Your task to perform on an android device: empty trash in google photos Image 0: 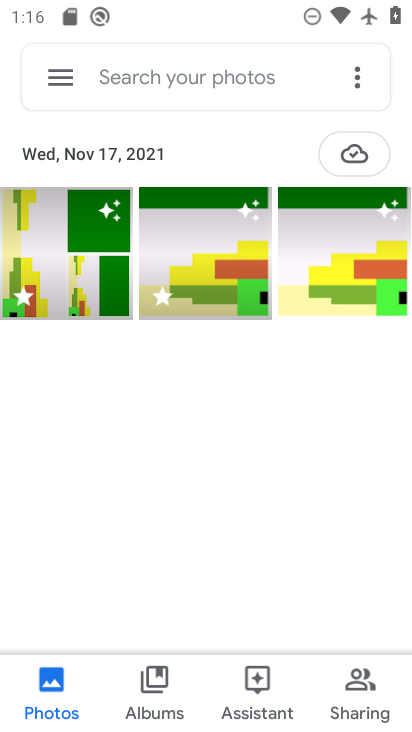
Step 0: press home button
Your task to perform on an android device: empty trash in google photos Image 1: 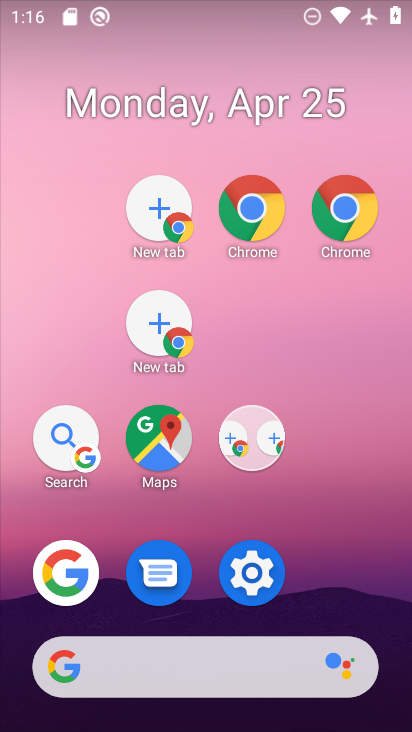
Step 1: drag from (371, 624) to (183, 157)
Your task to perform on an android device: empty trash in google photos Image 2: 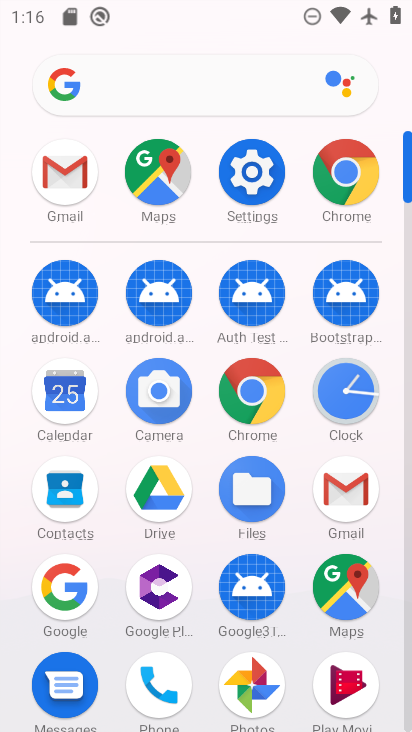
Step 2: click (260, 679)
Your task to perform on an android device: empty trash in google photos Image 3: 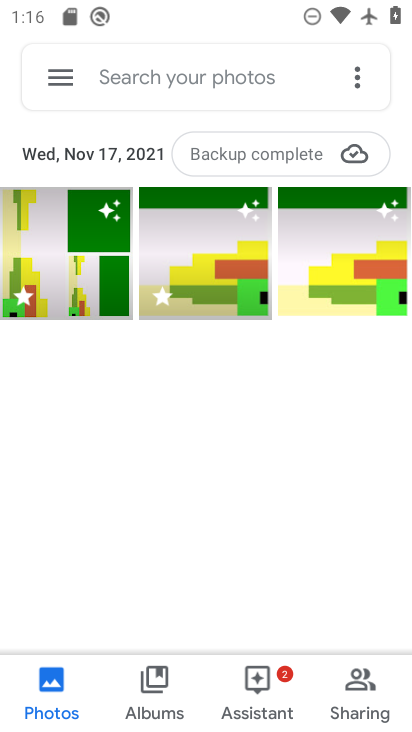
Step 3: click (68, 81)
Your task to perform on an android device: empty trash in google photos Image 4: 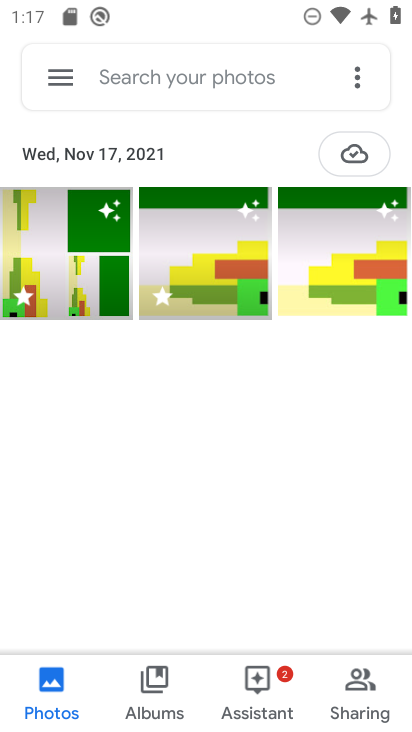
Step 4: click (68, 83)
Your task to perform on an android device: empty trash in google photos Image 5: 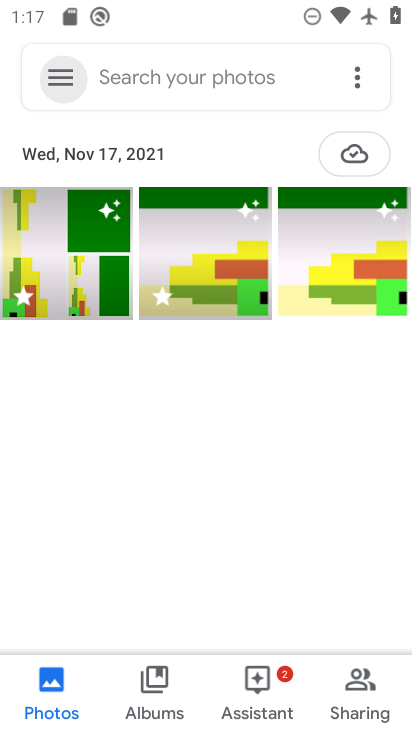
Step 5: drag from (68, 83) to (48, 299)
Your task to perform on an android device: empty trash in google photos Image 6: 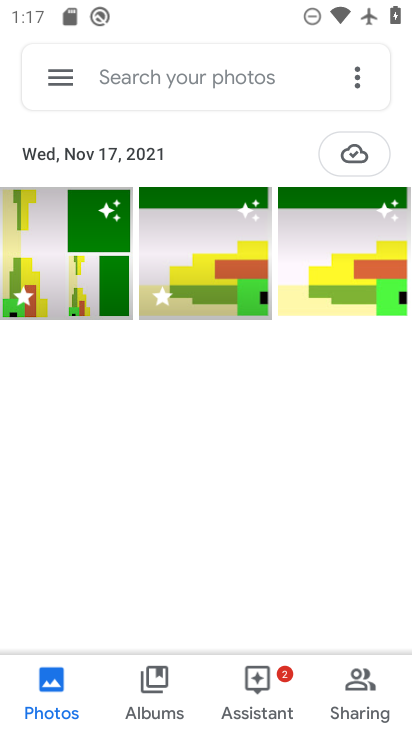
Step 6: click (53, 63)
Your task to perform on an android device: empty trash in google photos Image 7: 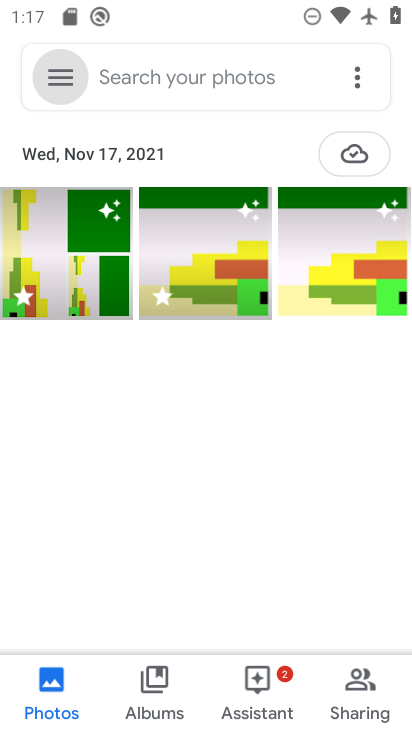
Step 7: click (54, 64)
Your task to perform on an android device: empty trash in google photos Image 8: 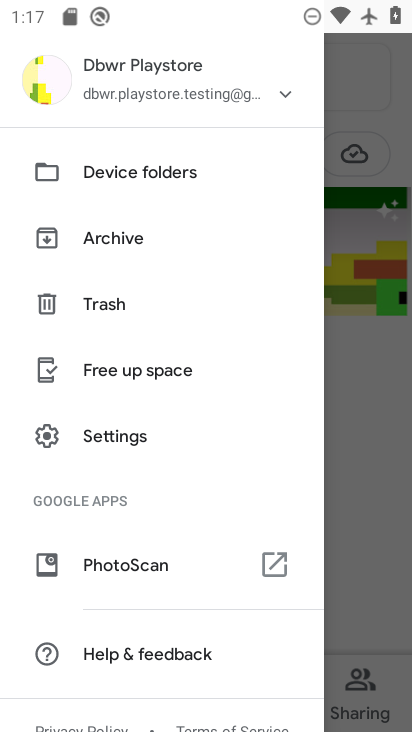
Step 8: click (96, 302)
Your task to perform on an android device: empty trash in google photos Image 9: 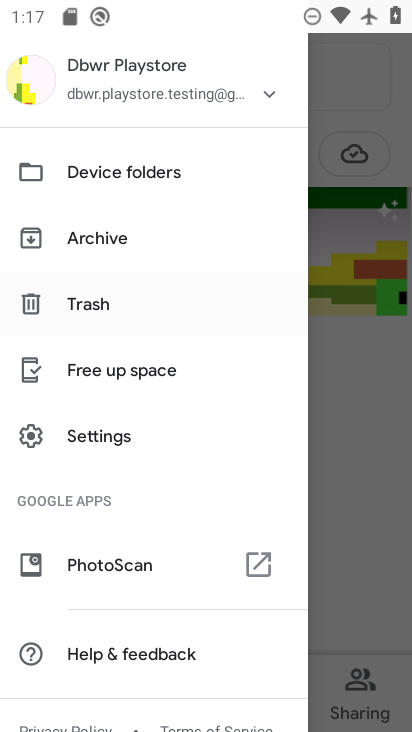
Step 9: click (96, 303)
Your task to perform on an android device: empty trash in google photos Image 10: 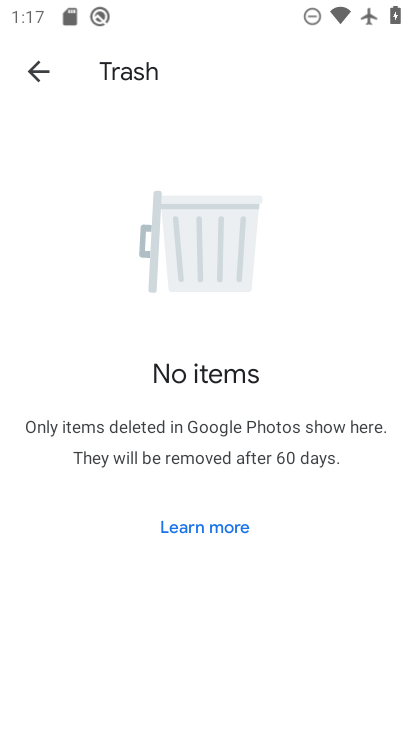
Step 10: task complete